Your task to perform on an android device: open app "ZOOM Cloud Meetings" (install if not already installed) and go to login screen Image 0: 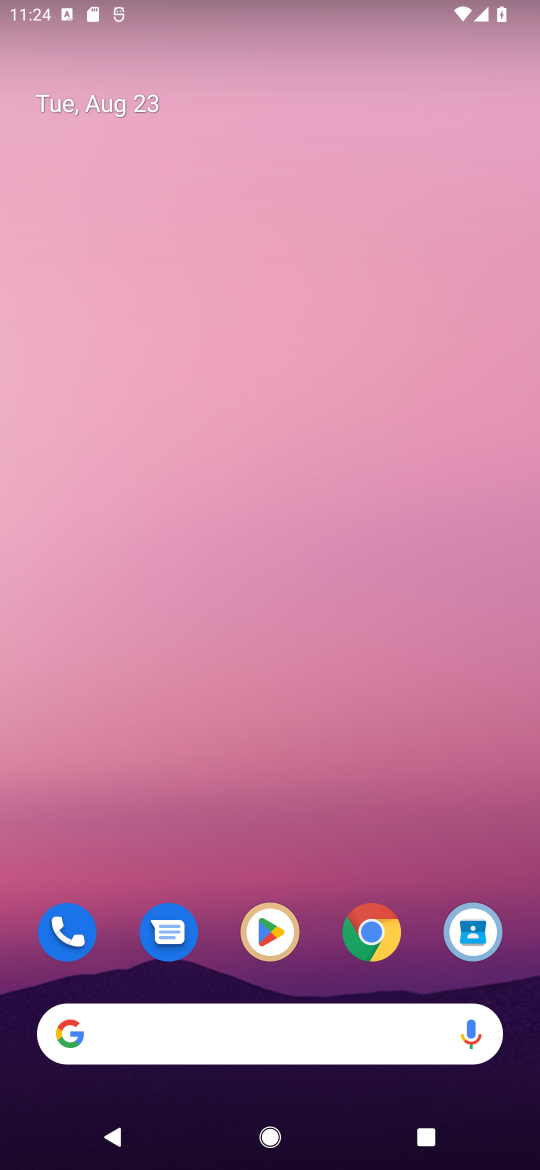
Step 0: click (286, 920)
Your task to perform on an android device: open app "ZOOM Cloud Meetings" (install if not already installed) and go to login screen Image 1: 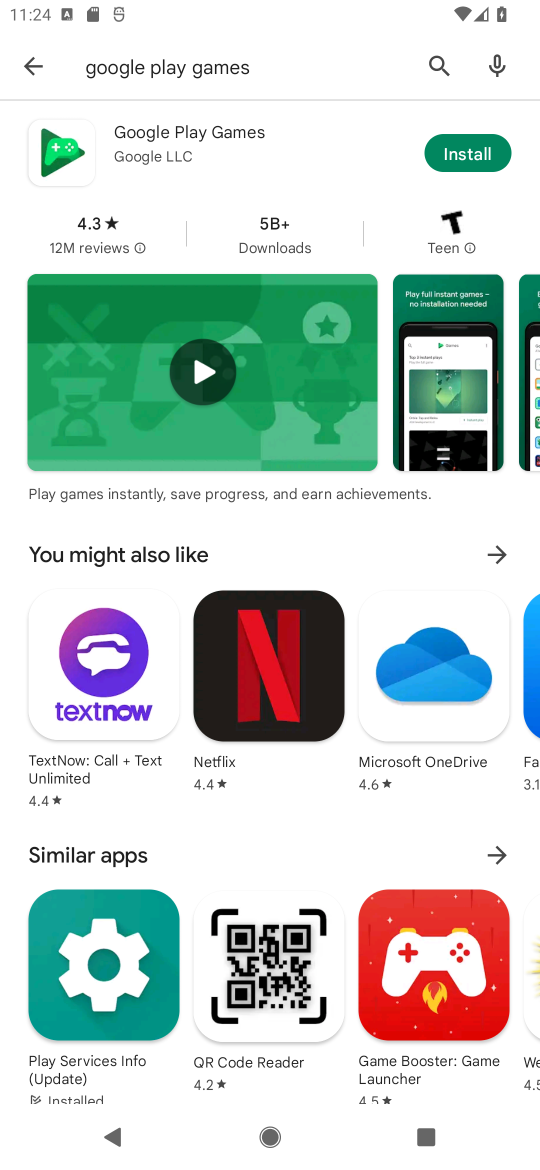
Step 1: click (429, 72)
Your task to perform on an android device: open app "ZOOM Cloud Meetings" (install if not already installed) and go to login screen Image 2: 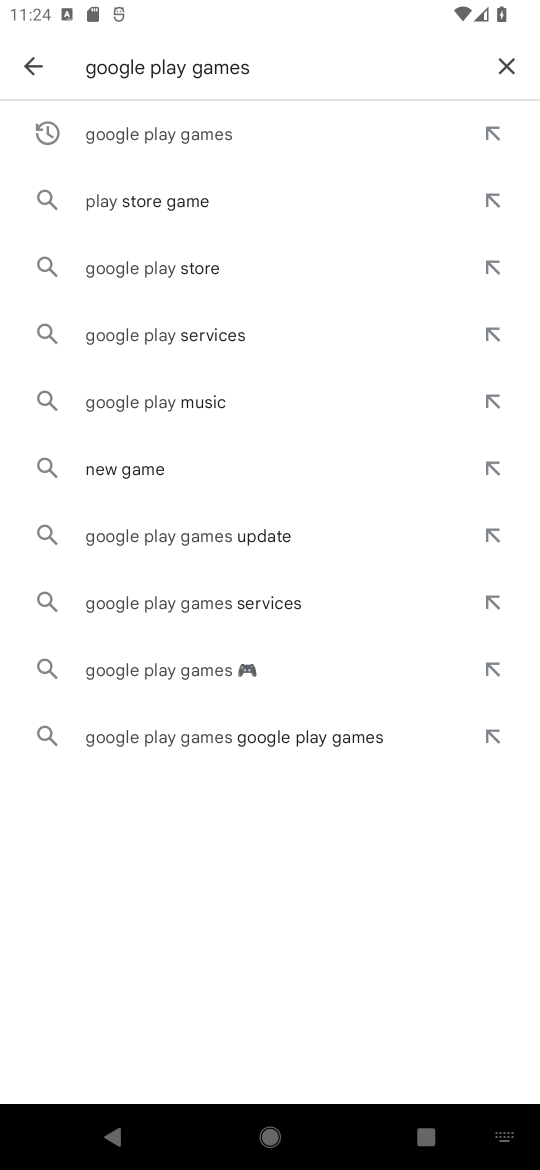
Step 2: click (495, 64)
Your task to perform on an android device: open app "ZOOM Cloud Meetings" (install if not already installed) and go to login screen Image 3: 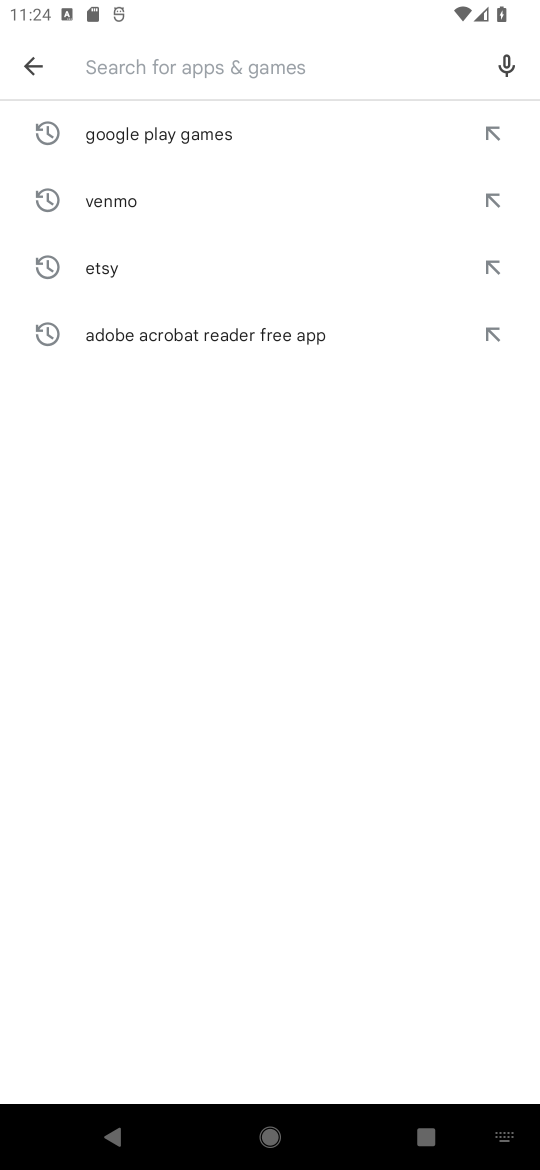
Step 3: click (116, 51)
Your task to perform on an android device: open app "ZOOM Cloud Meetings" (install if not already installed) and go to login screen Image 4: 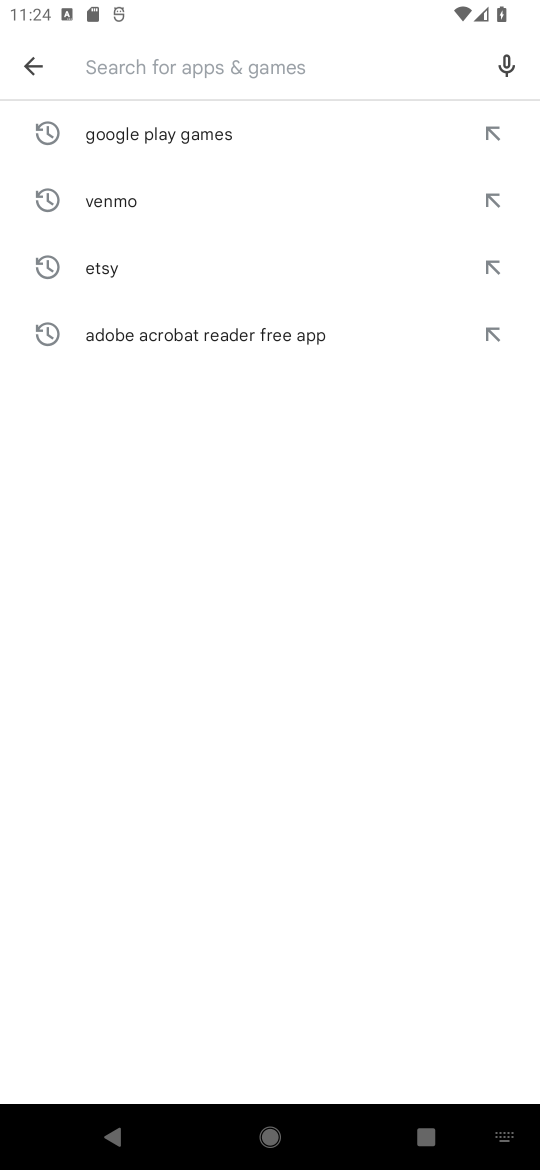
Step 4: type "ZOOM Cloud Meetings"
Your task to perform on an android device: open app "ZOOM Cloud Meetings" (install if not already installed) and go to login screen Image 5: 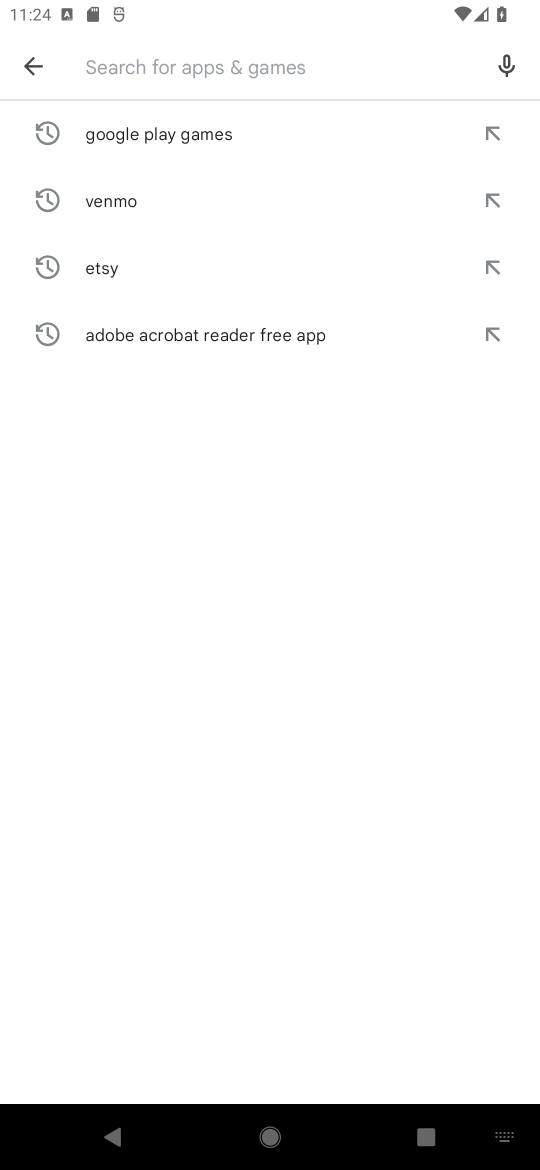
Step 5: click (302, 580)
Your task to perform on an android device: open app "ZOOM Cloud Meetings" (install if not already installed) and go to login screen Image 6: 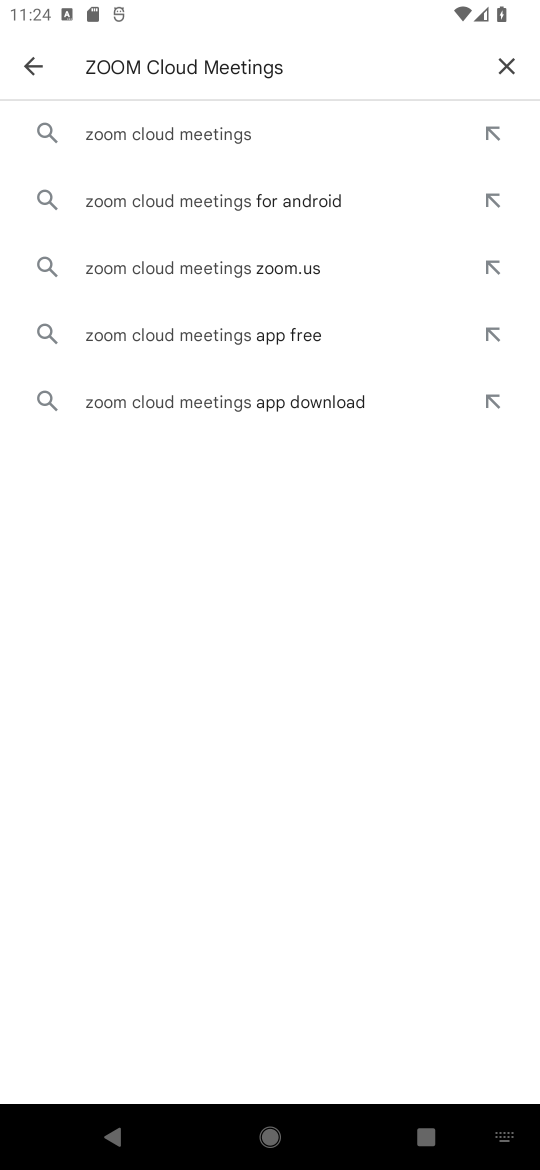
Step 6: click (192, 132)
Your task to perform on an android device: open app "ZOOM Cloud Meetings" (install if not already installed) and go to login screen Image 7: 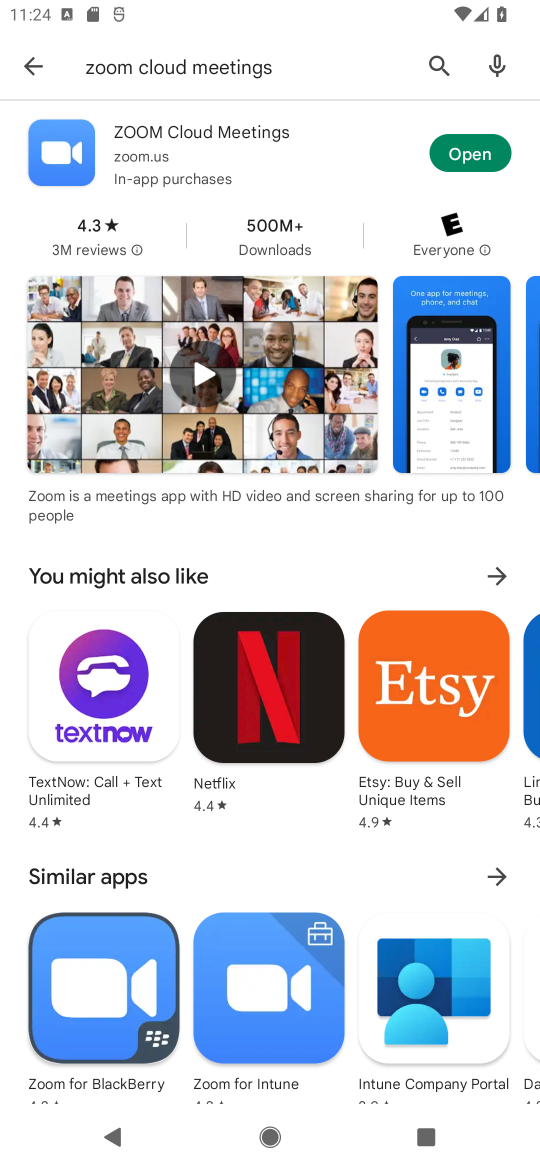
Step 7: click (479, 156)
Your task to perform on an android device: open app "ZOOM Cloud Meetings" (install if not already installed) and go to login screen Image 8: 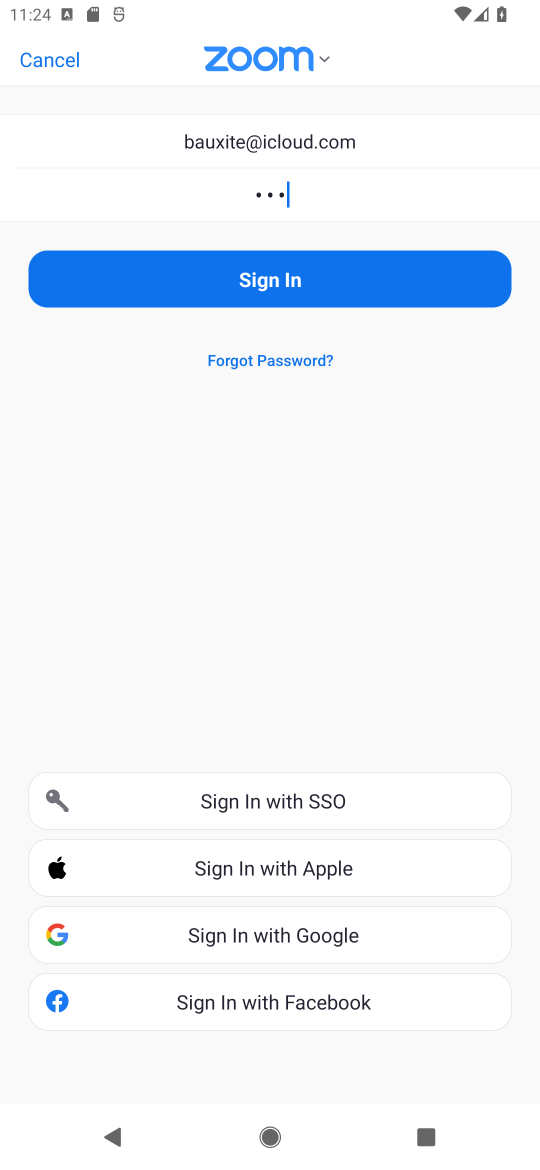
Step 8: task complete